Your task to perform on an android device: open wifi settings Image 0: 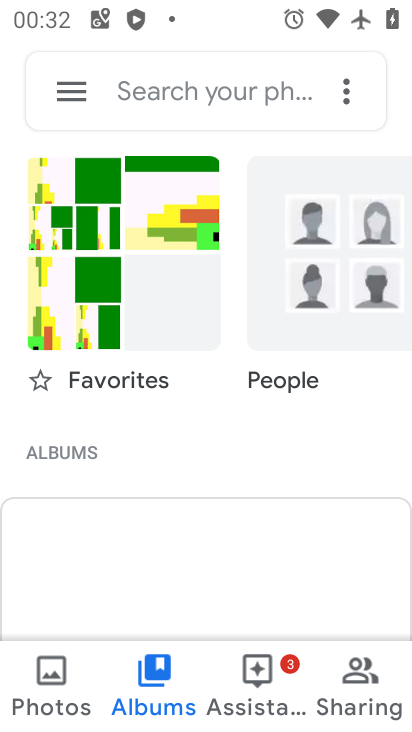
Step 0: press home button
Your task to perform on an android device: open wifi settings Image 1: 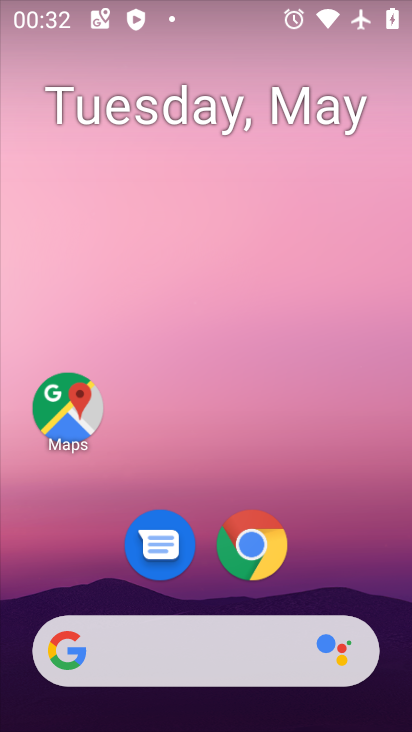
Step 1: drag from (323, 590) to (330, 31)
Your task to perform on an android device: open wifi settings Image 2: 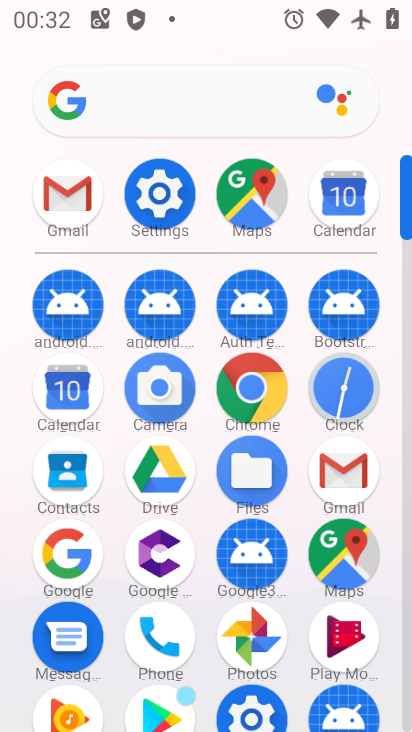
Step 2: click (171, 195)
Your task to perform on an android device: open wifi settings Image 3: 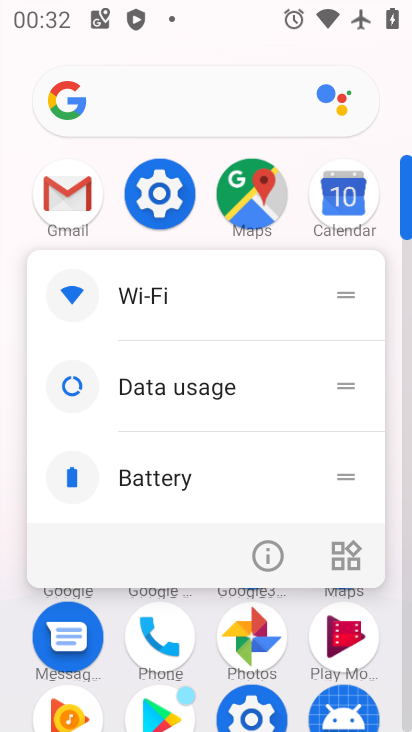
Step 3: click (159, 208)
Your task to perform on an android device: open wifi settings Image 4: 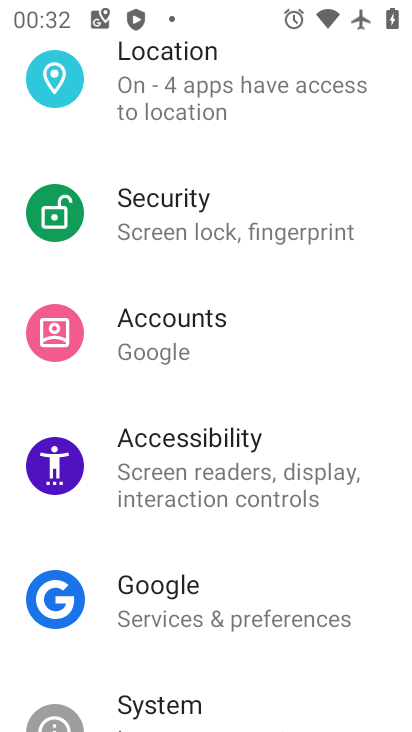
Step 4: drag from (320, 226) to (205, 479)
Your task to perform on an android device: open wifi settings Image 5: 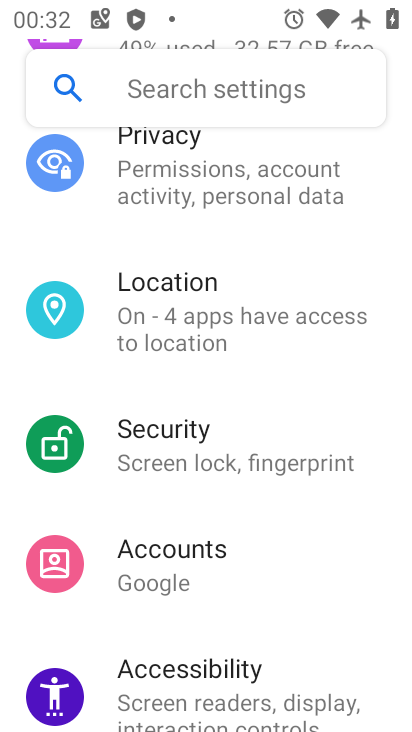
Step 5: drag from (149, 321) to (160, 484)
Your task to perform on an android device: open wifi settings Image 6: 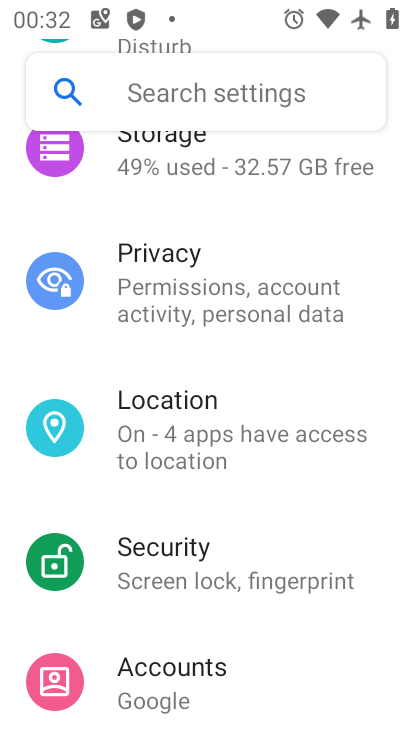
Step 6: drag from (159, 308) to (188, 489)
Your task to perform on an android device: open wifi settings Image 7: 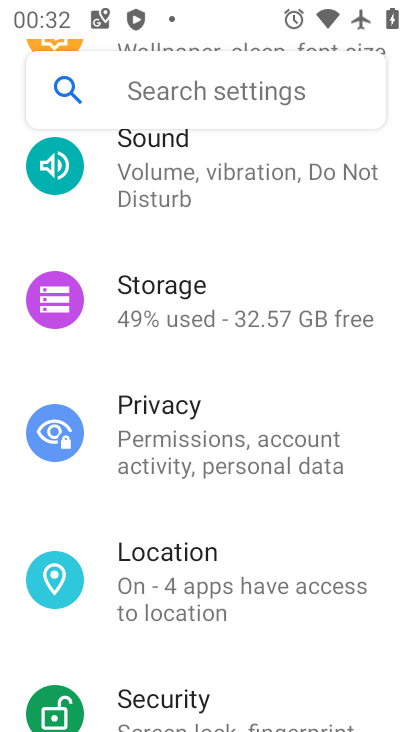
Step 7: drag from (207, 322) to (198, 519)
Your task to perform on an android device: open wifi settings Image 8: 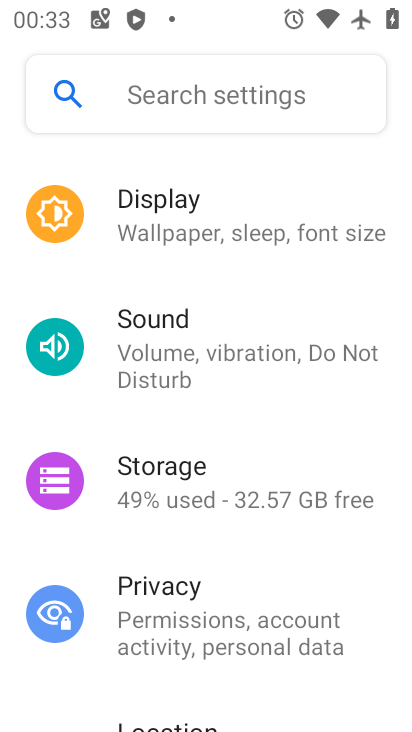
Step 8: drag from (181, 383) to (192, 510)
Your task to perform on an android device: open wifi settings Image 9: 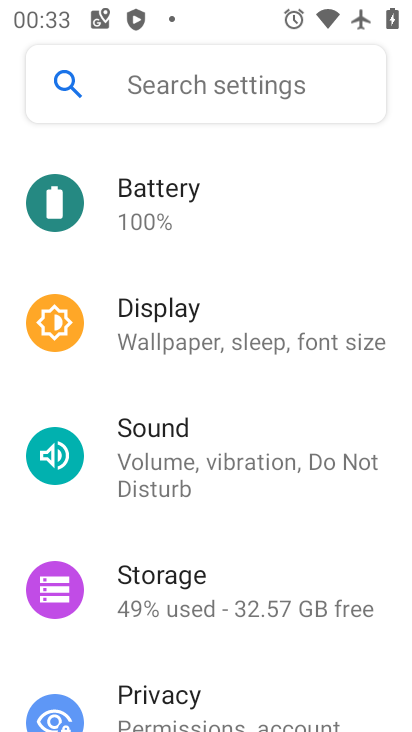
Step 9: drag from (225, 285) to (218, 416)
Your task to perform on an android device: open wifi settings Image 10: 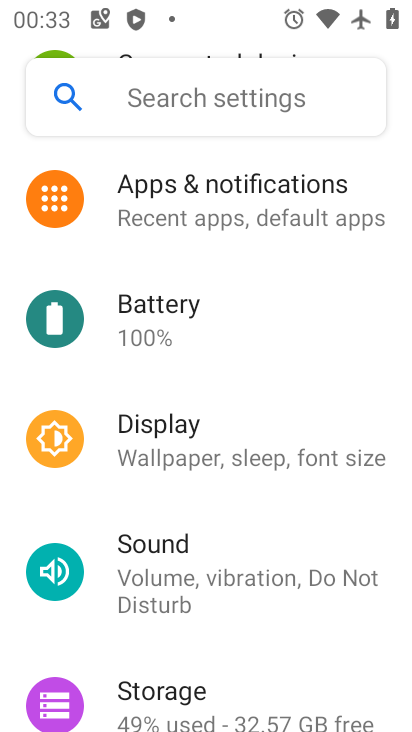
Step 10: drag from (223, 310) to (236, 417)
Your task to perform on an android device: open wifi settings Image 11: 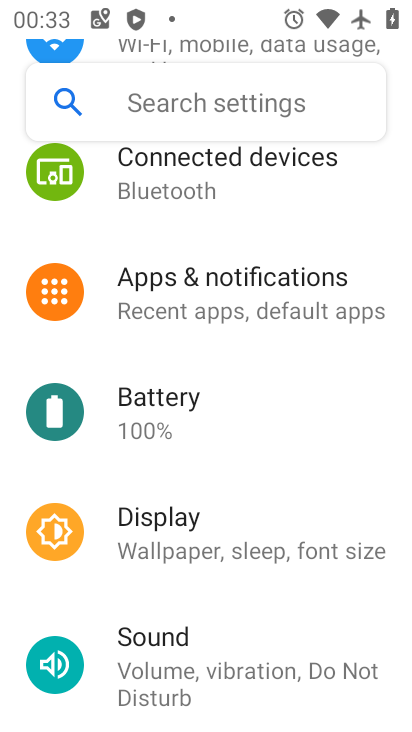
Step 11: drag from (214, 301) to (214, 420)
Your task to perform on an android device: open wifi settings Image 12: 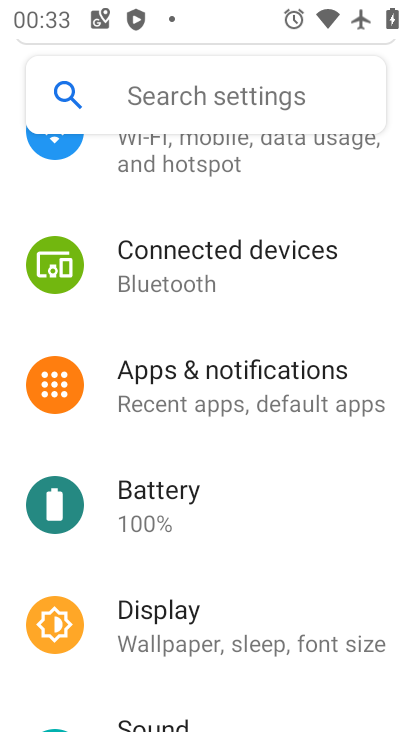
Step 12: click (229, 170)
Your task to perform on an android device: open wifi settings Image 13: 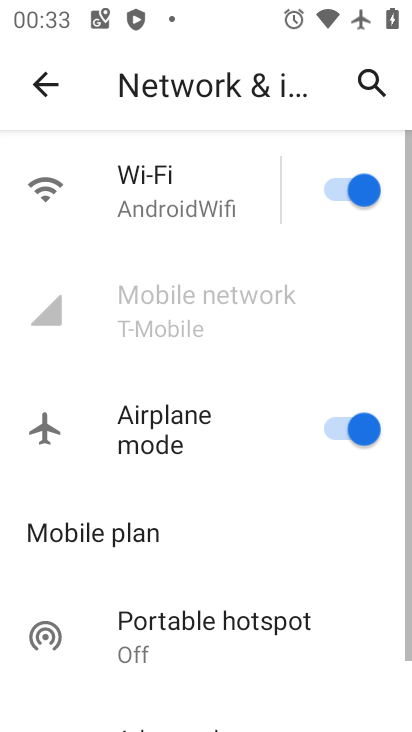
Step 13: click (216, 196)
Your task to perform on an android device: open wifi settings Image 14: 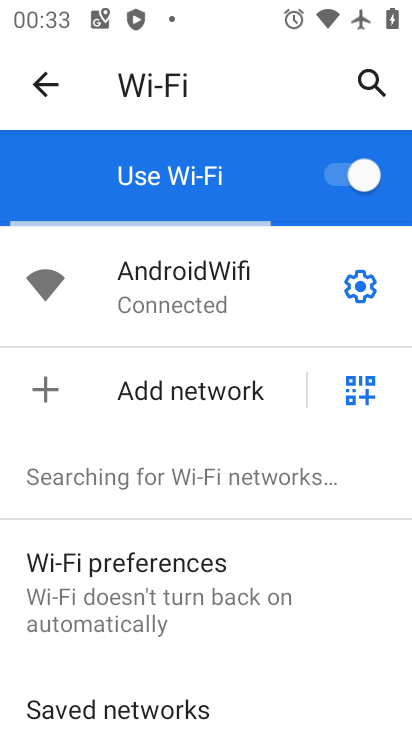
Step 14: task complete